Your task to perform on an android device: Open calendar and show me the fourth week of next month Image 0: 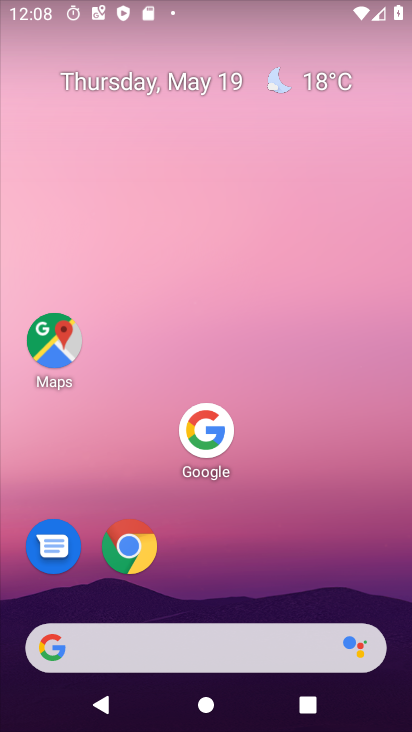
Step 0: drag from (280, 546) to (306, 66)
Your task to perform on an android device: Open calendar and show me the fourth week of next month Image 1: 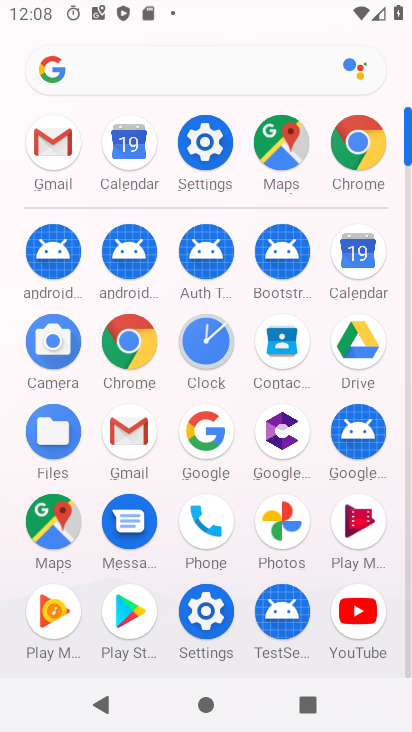
Step 1: click (359, 258)
Your task to perform on an android device: Open calendar and show me the fourth week of next month Image 2: 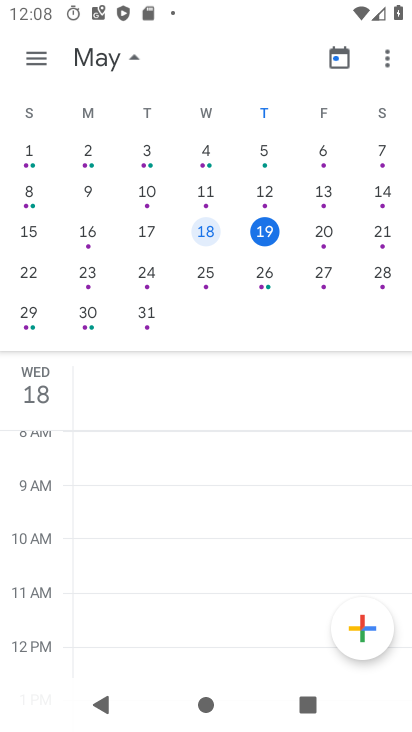
Step 2: drag from (385, 315) to (11, 315)
Your task to perform on an android device: Open calendar and show me the fourth week of next month Image 3: 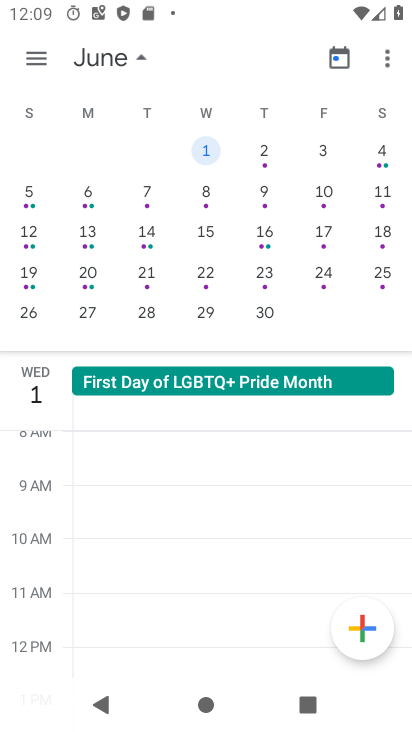
Step 3: click (207, 273)
Your task to perform on an android device: Open calendar and show me the fourth week of next month Image 4: 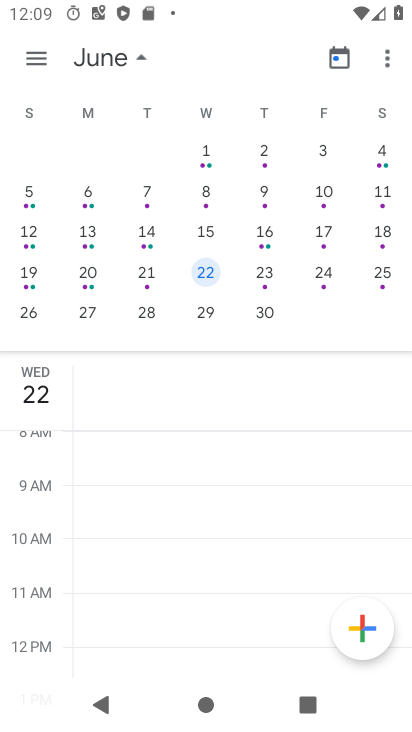
Step 4: task complete